Your task to perform on an android device: turn off data saver in the chrome app Image 0: 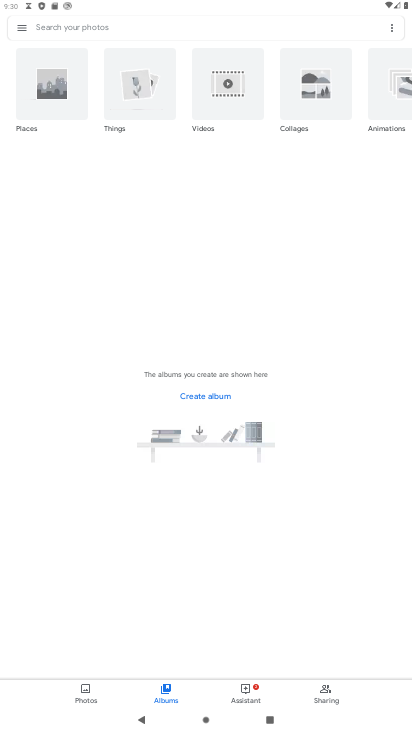
Step 0: press home button
Your task to perform on an android device: turn off data saver in the chrome app Image 1: 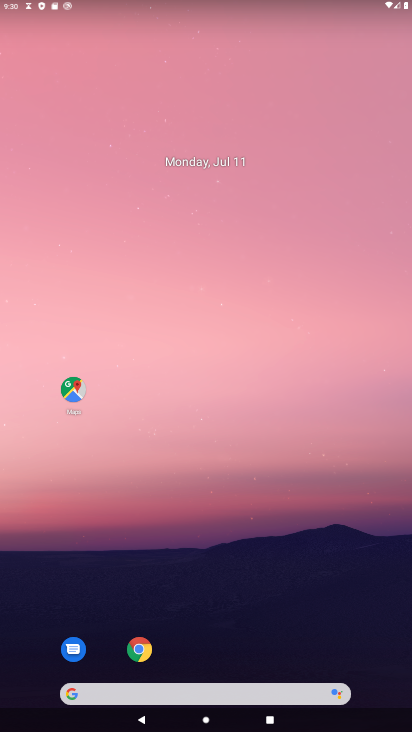
Step 1: drag from (207, 672) to (243, 26)
Your task to perform on an android device: turn off data saver in the chrome app Image 2: 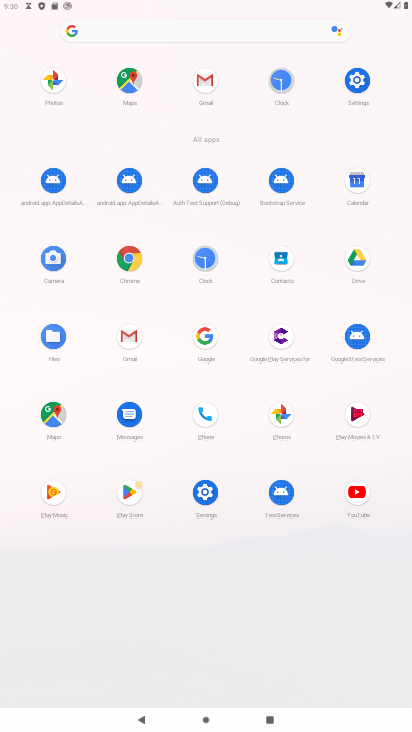
Step 2: click (123, 263)
Your task to perform on an android device: turn off data saver in the chrome app Image 3: 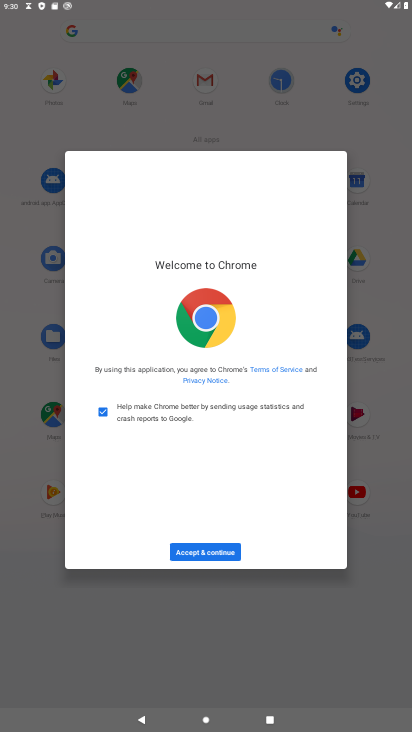
Step 3: click (193, 542)
Your task to perform on an android device: turn off data saver in the chrome app Image 4: 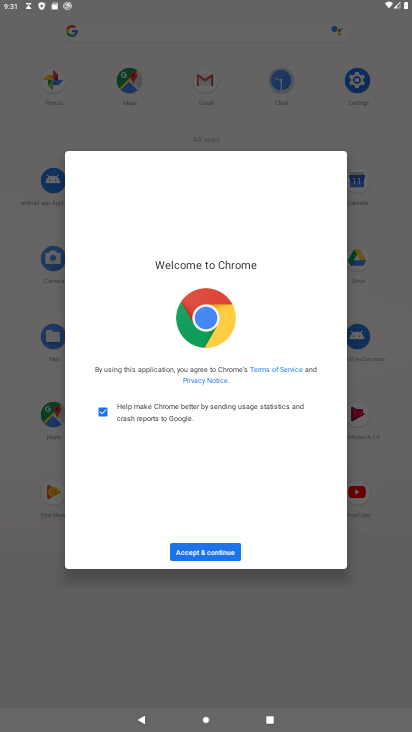
Step 4: click (205, 553)
Your task to perform on an android device: turn off data saver in the chrome app Image 5: 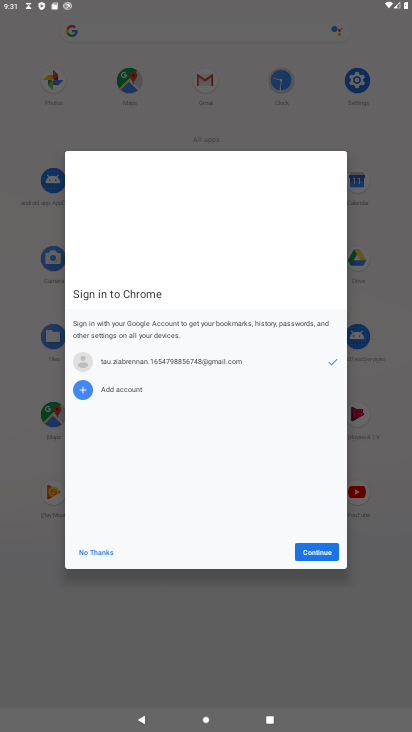
Step 5: click (324, 549)
Your task to perform on an android device: turn off data saver in the chrome app Image 6: 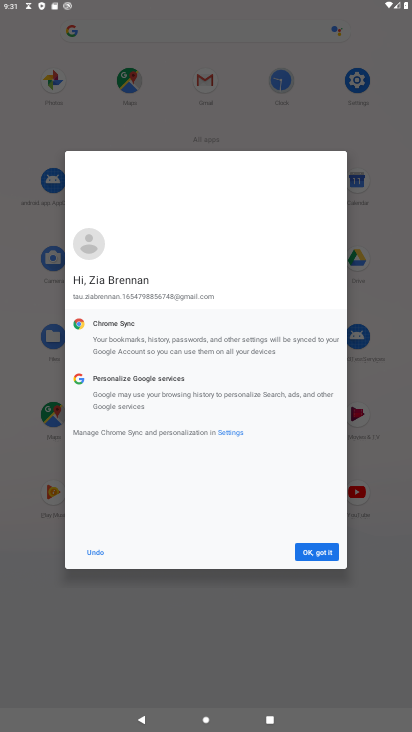
Step 6: click (319, 553)
Your task to perform on an android device: turn off data saver in the chrome app Image 7: 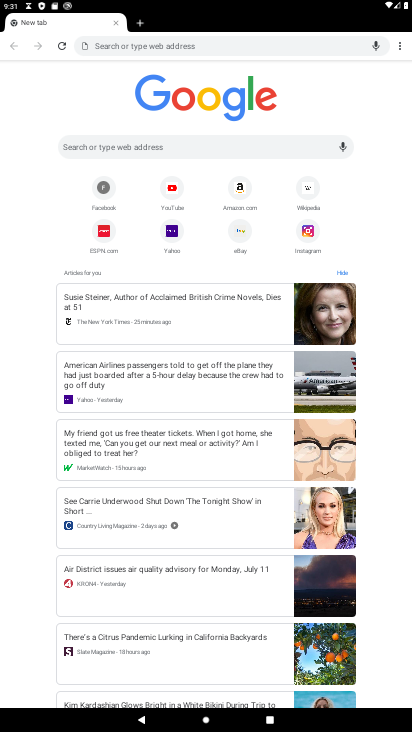
Step 7: click (396, 47)
Your task to perform on an android device: turn off data saver in the chrome app Image 8: 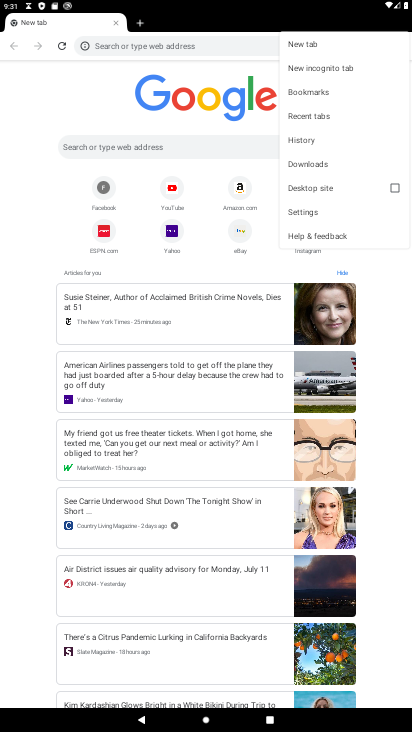
Step 8: click (310, 211)
Your task to perform on an android device: turn off data saver in the chrome app Image 9: 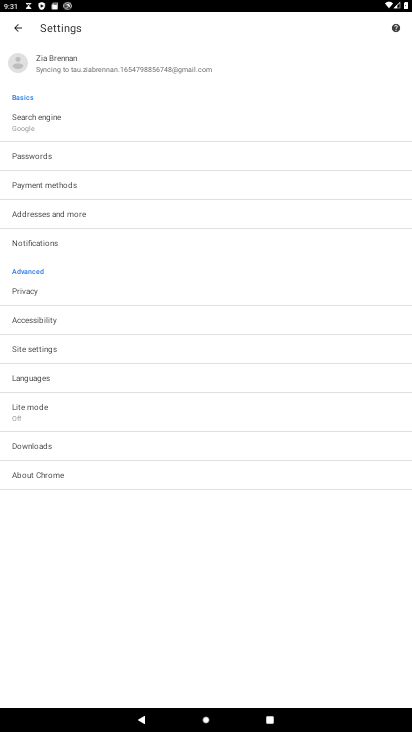
Step 9: click (44, 412)
Your task to perform on an android device: turn off data saver in the chrome app Image 10: 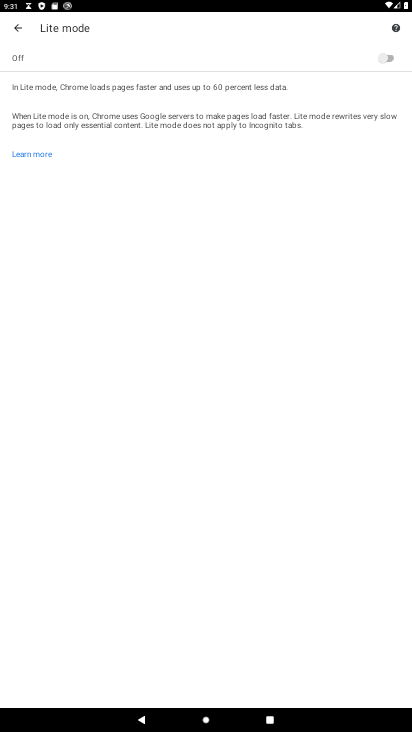
Step 10: task complete